Your task to perform on an android device: Open Reddit.com Image 0: 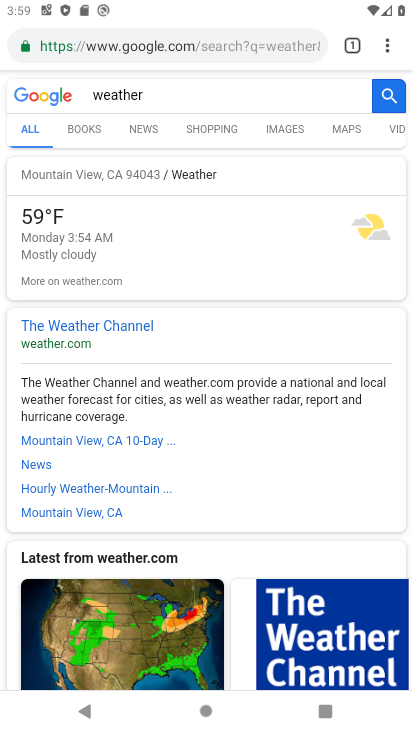
Step 0: click (98, 51)
Your task to perform on an android device: Open Reddit.com Image 1: 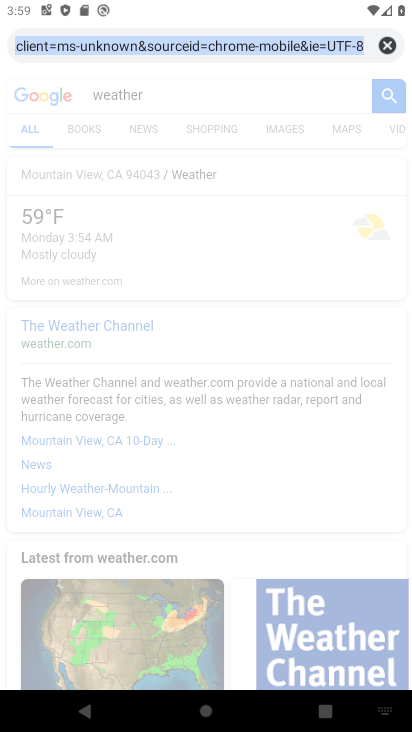
Step 1: type "reddit.com"
Your task to perform on an android device: Open Reddit.com Image 2: 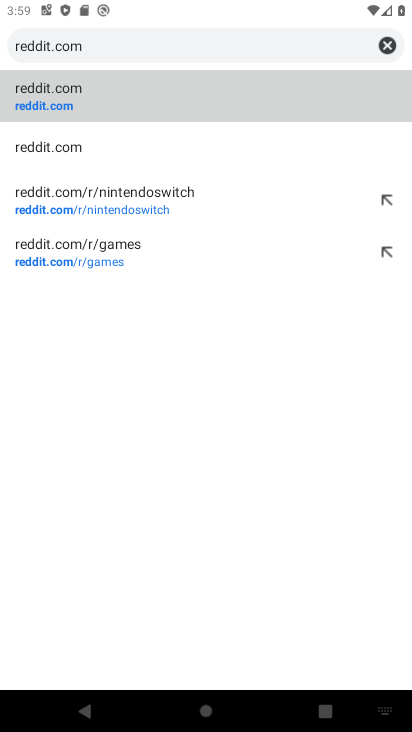
Step 2: click (51, 97)
Your task to perform on an android device: Open Reddit.com Image 3: 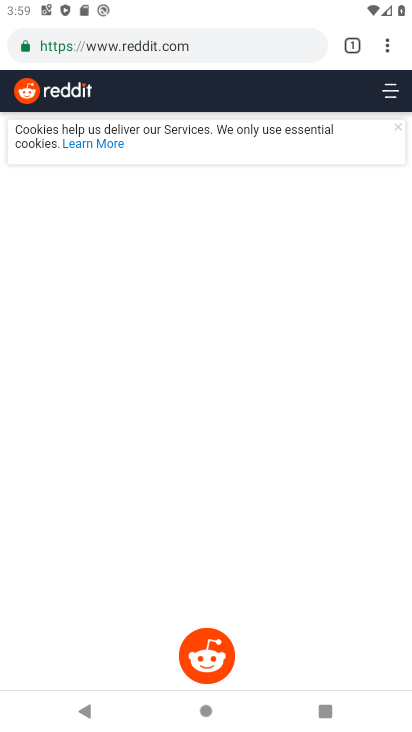
Step 3: task complete